Your task to perform on an android device: turn off sleep mode Image 0: 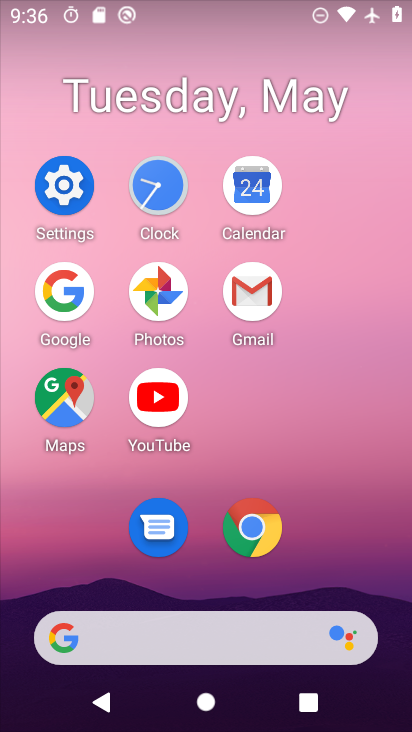
Step 0: click (60, 172)
Your task to perform on an android device: turn off sleep mode Image 1: 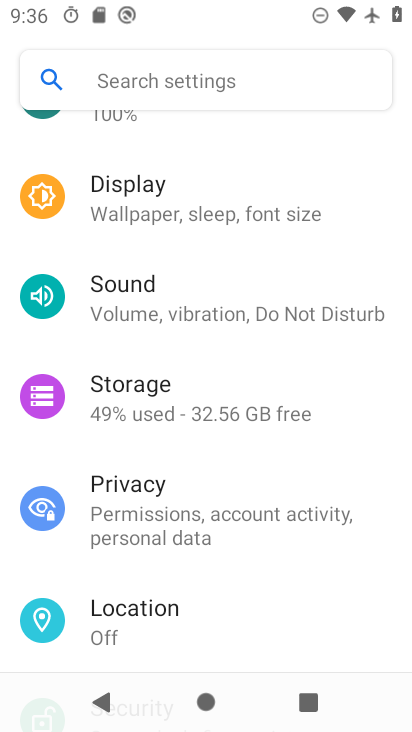
Step 1: drag from (311, 258) to (305, 593)
Your task to perform on an android device: turn off sleep mode Image 2: 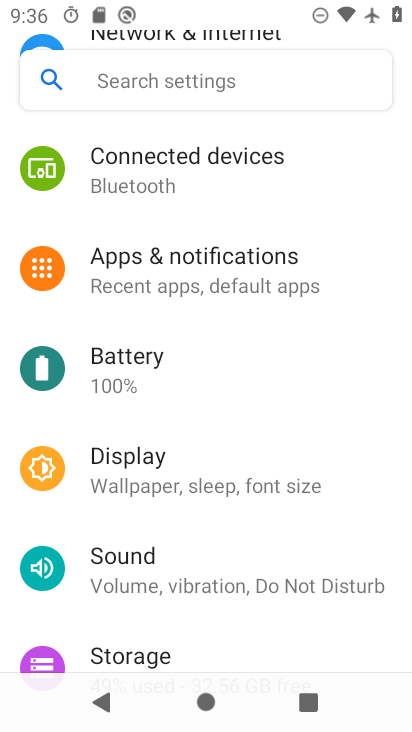
Step 2: click (240, 480)
Your task to perform on an android device: turn off sleep mode Image 3: 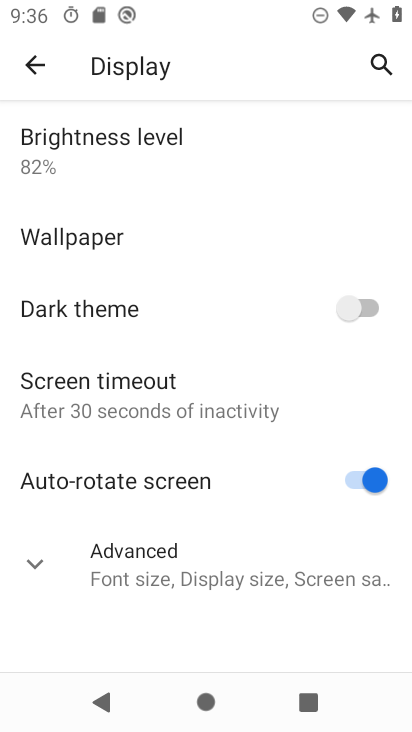
Step 3: click (221, 415)
Your task to perform on an android device: turn off sleep mode Image 4: 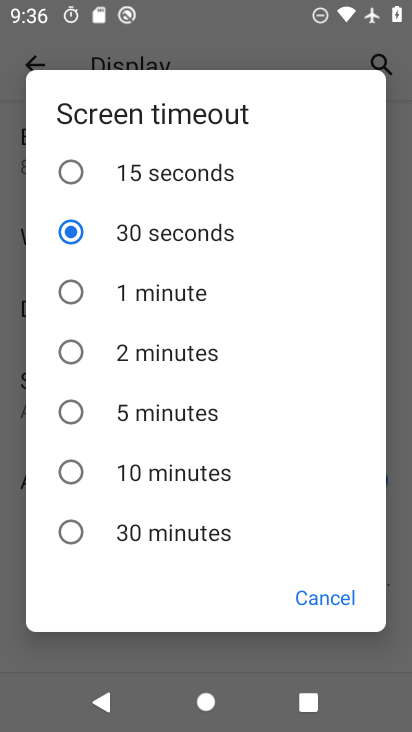
Step 4: task complete